Your task to perform on an android device: Go to Google Image 0: 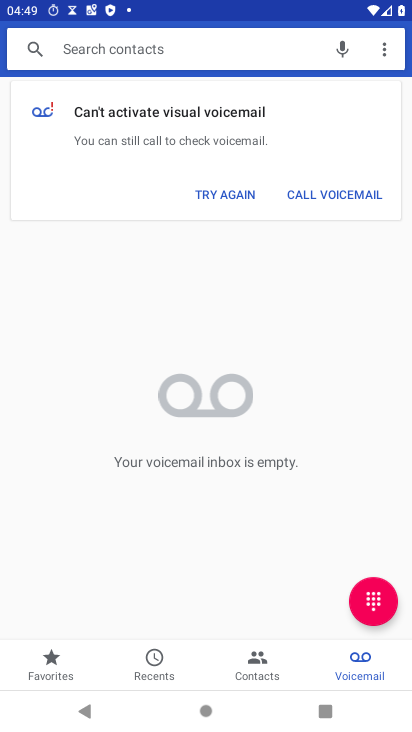
Step 0: press home button
Your task to perform on an android device: Go to Google Image 1: 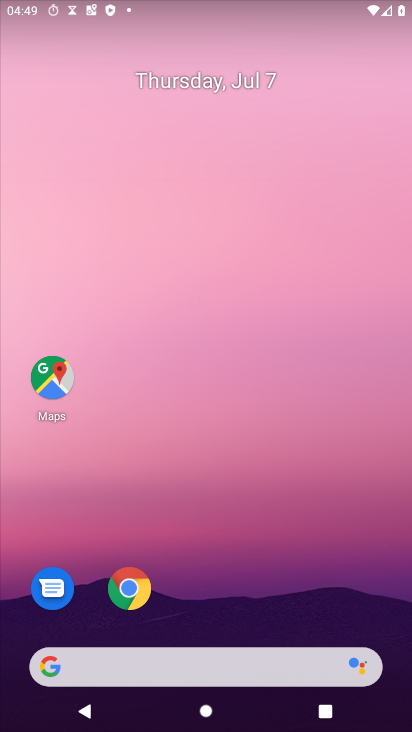
Step 1: click (50, 666)
Your task to perform on an android device: Go to Google Image 2: 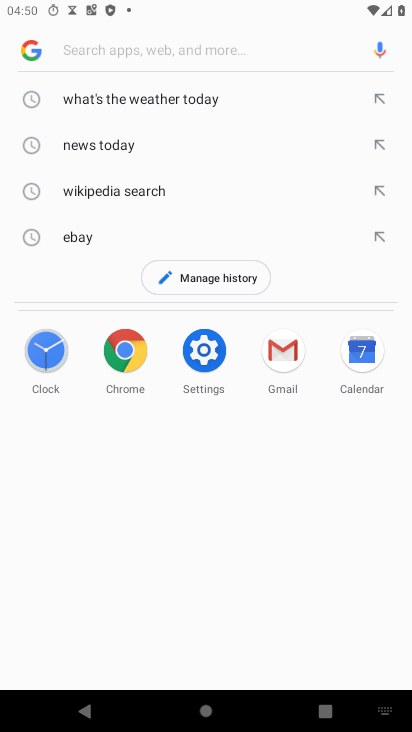
Step 2: task complete